Your task to perform on an android device: toggle notification dots Image 0: 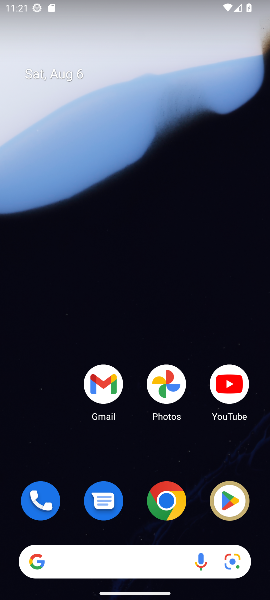
Step 0: drag from (138, 379) to (138, 136)
Your task to perform on an android device: toggle notification dots Image 1: 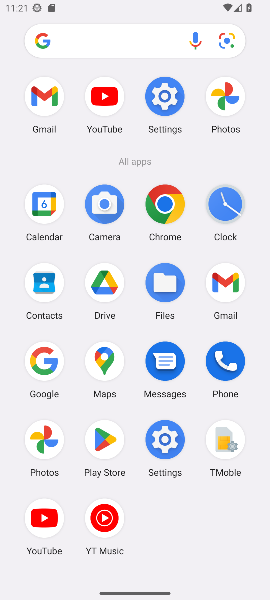
Step 1: click (162, 96)
Your task to perform on an android device: toggle notification dots Image 2: 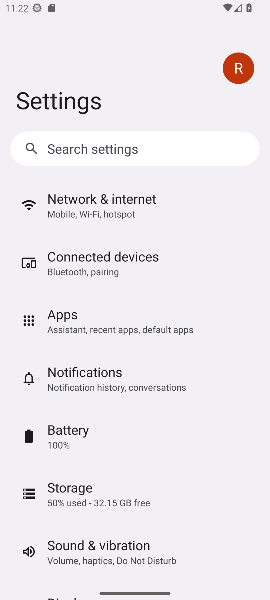
Step 2: drag from (87, 448) to (87, 253)
Your task to perform on an android device: toggle notification dots Image 3: 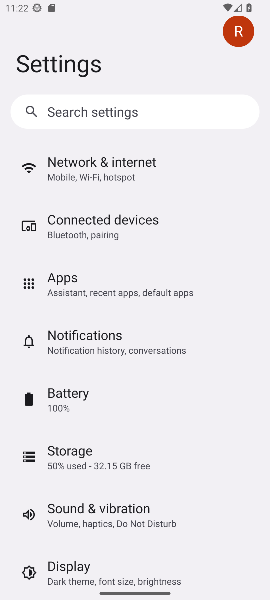
Step 3: drag from (93, 475) to (108, 205)
Your task to perform on an android device: toggle notification dots Image 4: 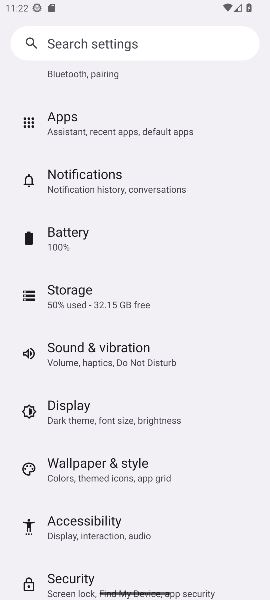
Step 4: click (108, 197)
Your task to perform on an android device: toggle notification dots Image 5: 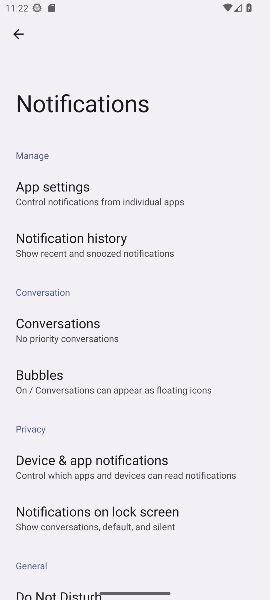
Step 5: drag from (75, 542) to (67, 273)
Your task to perform on an android device: toggle notification dots Image 6: 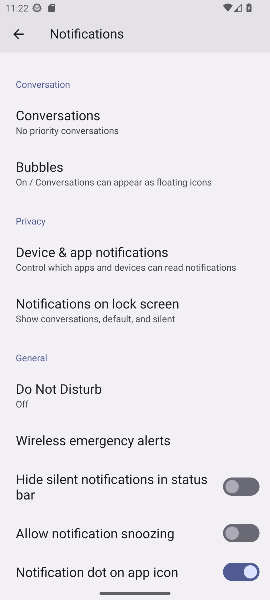
Step 6: click (232, 568)
Your task to perform on an android device: toggle notification dots Image 7: 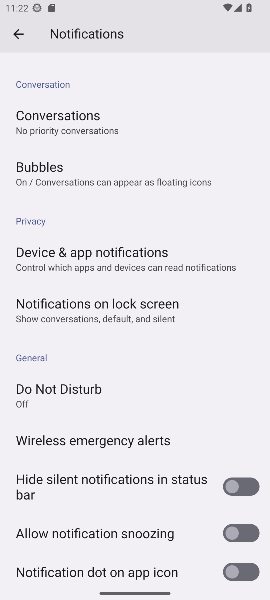
Step 7: task complete